Your task to perform on an android device: Go to battery settings Image 0: 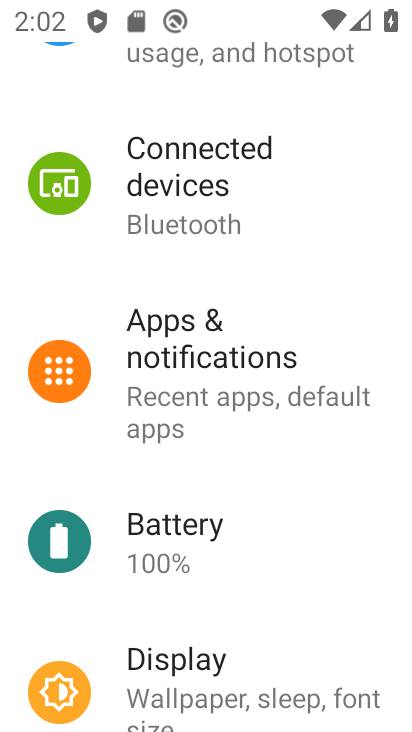
Step 0: click (204, 554)
Your task to perform on an android device: Go to battery settings Image 1: 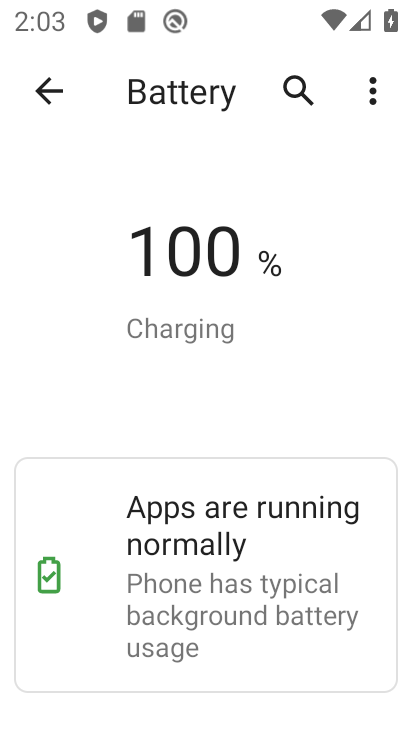
Step 1: task complete